Your task to perform on an android device: Go to Wikipedia Image 0: 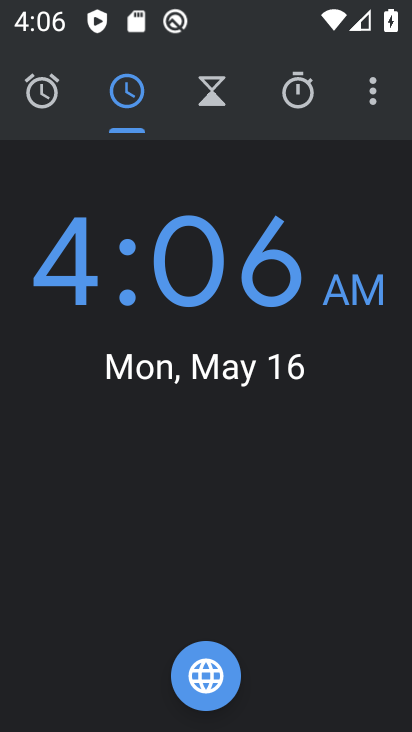
Step 0: press home button
Your task to perform on an android device: Go to Wikipedia Image 1: 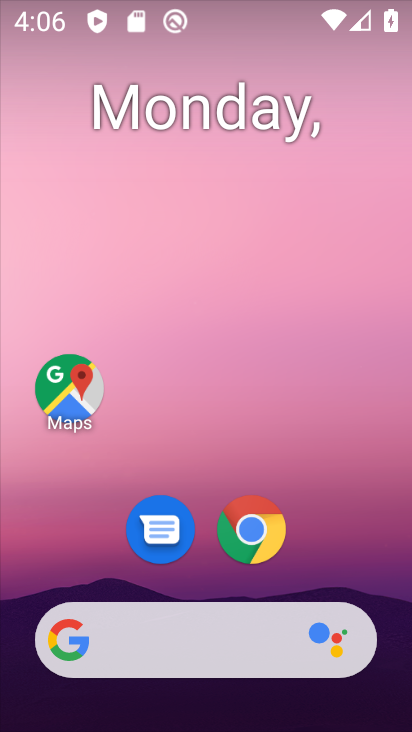
Step 1: drag from (210, 573) to (254, 0)
Your task to perform on an android device: Go to Wikipedia Image 2: 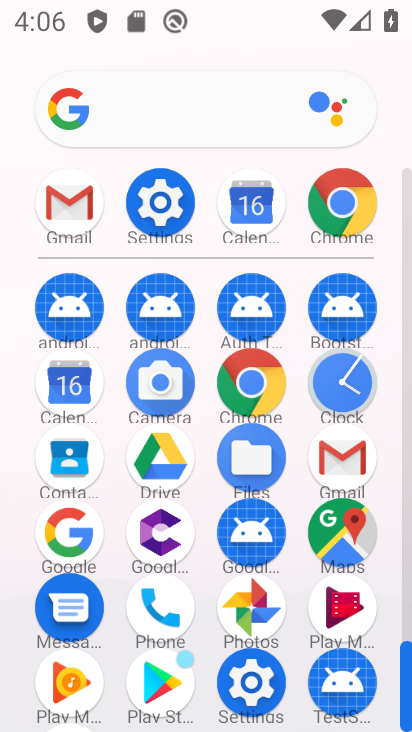
Step 2: click (360, 196)
Your task to perform on an android device: Go to Wikipedia Image 3: 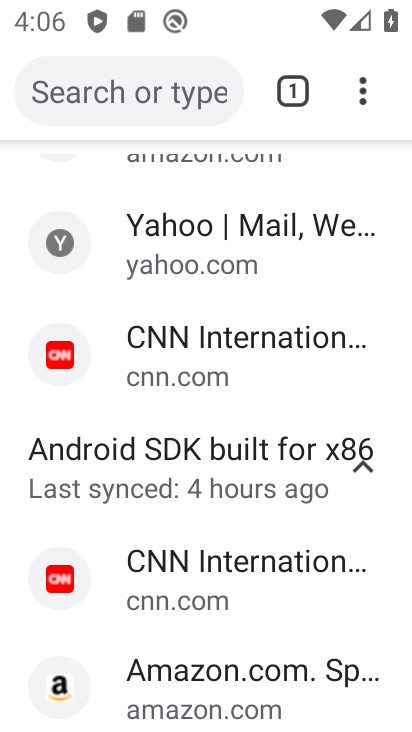
Step 3: click (157, 101)
Your task to perform on an android device: Go to Wikipedia Image 4: 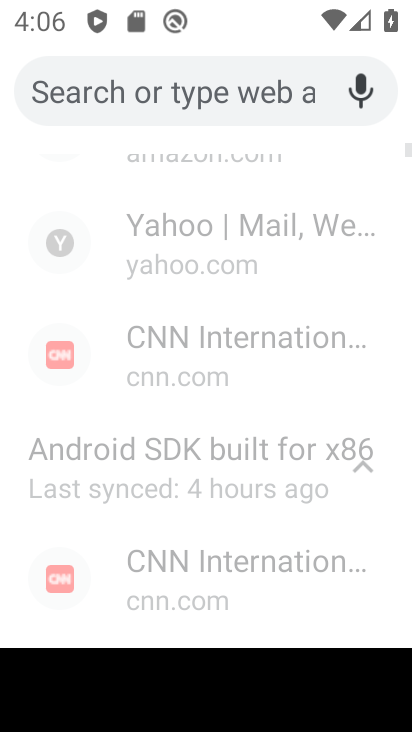
Step 4: type ""
Your task to perform on an android device: Go to Wikipedia Image 5: 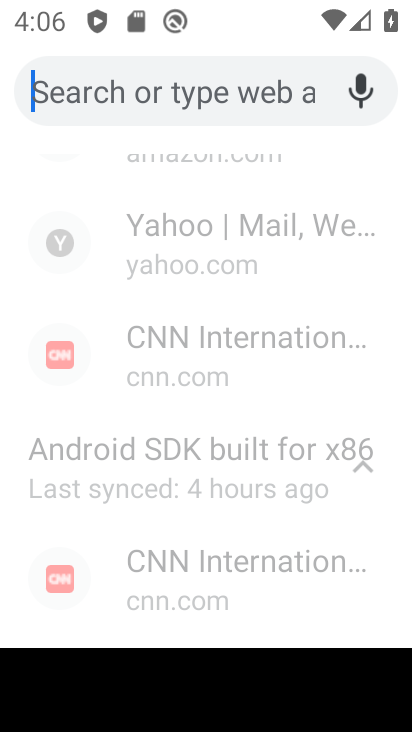
Step 5: type "wikipedia"
Your task to perform on an android device: Go to Wikipedia Image 6: 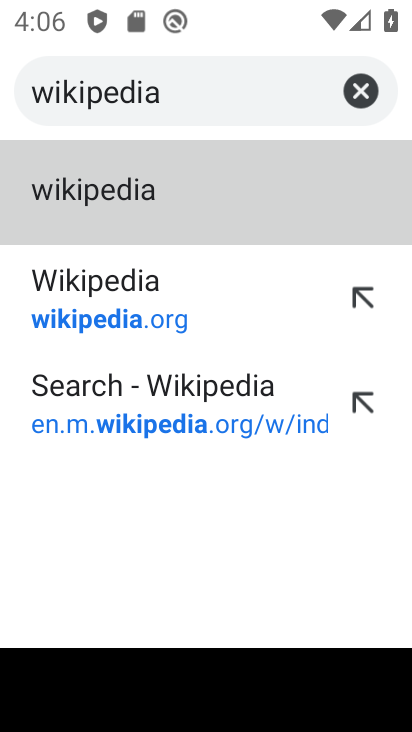
Step 6: click (193, 216)
Your task to perform on an android device: Go to Wikipedia Image 7: 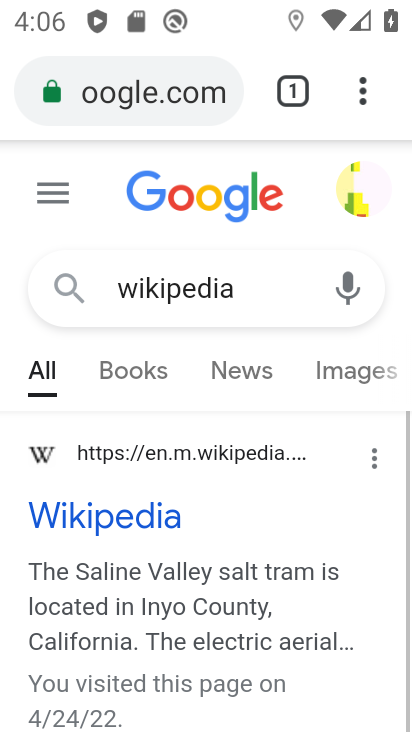
Step 7: task complete